Your task to perform on an android device: Open Google Chrome and click the shortcut for Amazon.com Image 0: 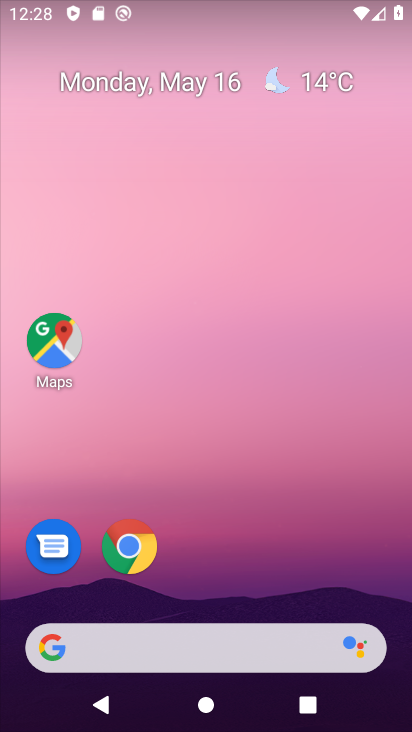
Step 0: drag from (259, 664) to (153, 324)
Your task to perform on an android device: Open Google Chrome and click the shortcut for Amazon.com Image 1: 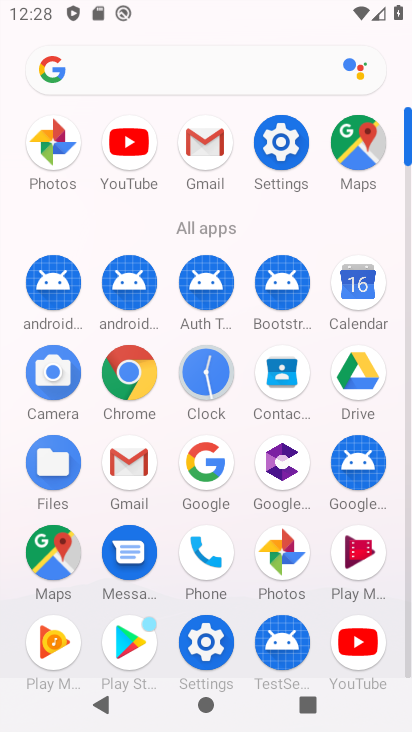
Step 1: click (137, 347)
Your task to perform on an android device: Open Google Chrome and click the shortcut for Amazon.com Image 2: 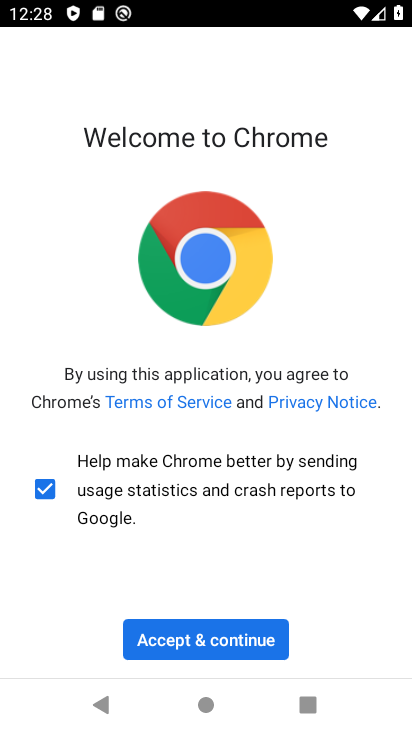
Step 2: click (196, 622)
Your task to perform on an android device: Open Google Chrome and click the shortcut for Amazon.com Image 3: 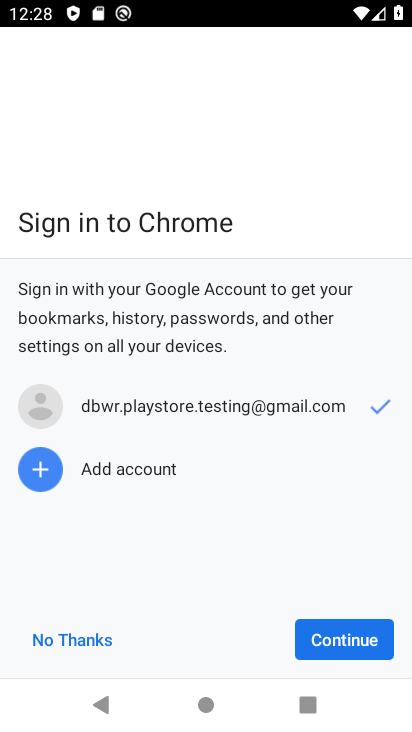
Step 3: click (301, 644)
Your task to perform on an android device: Open Google Chrome and click the shortcut for Amazon.com Image 4: 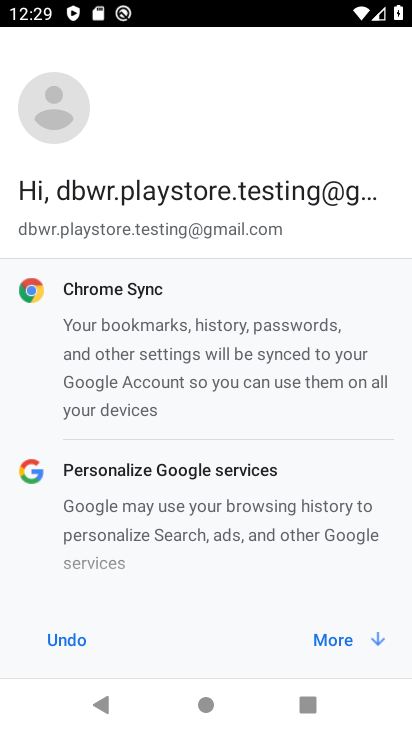
Step 4: click (377, 646)
Your task to perform on an android device: Open Google Chrome and click the shortcut for Amazon.com Image 5: 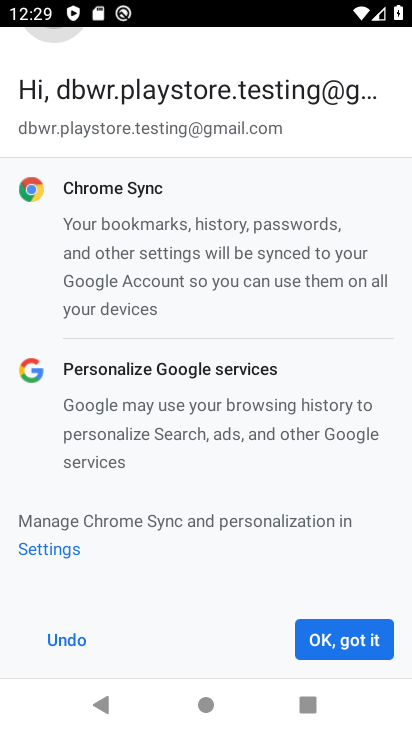
Step 5: click (343, 628)
Your task to perform on an android device: Open Google Chrome and click the shortcut for Amazon.com Image 6: 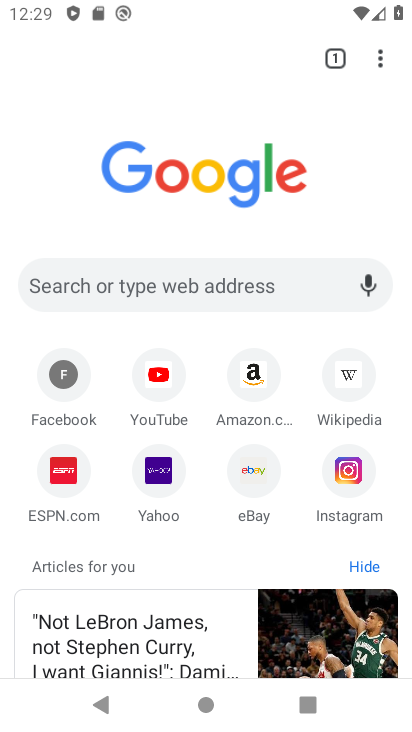
Step 6: click (245, 392)
Your task to perform on an android device: Open Google Chrome and click the shortcut for Amazon.com Image 7: 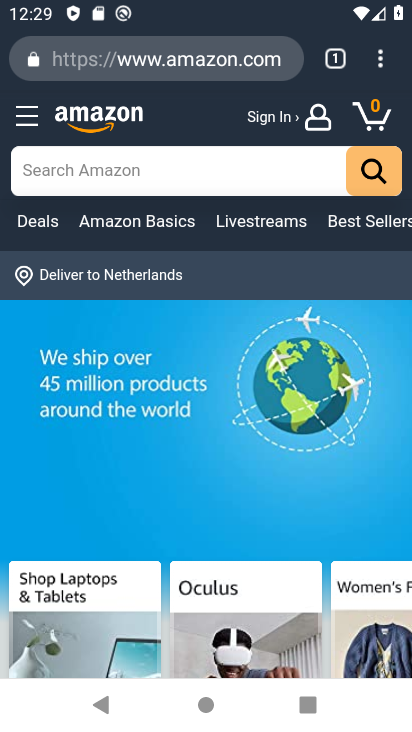
Step 7: click (381, 68)
Your task to perform on an android device: Open Google Chrome and click the shortcut for Amazon.com Image 8: 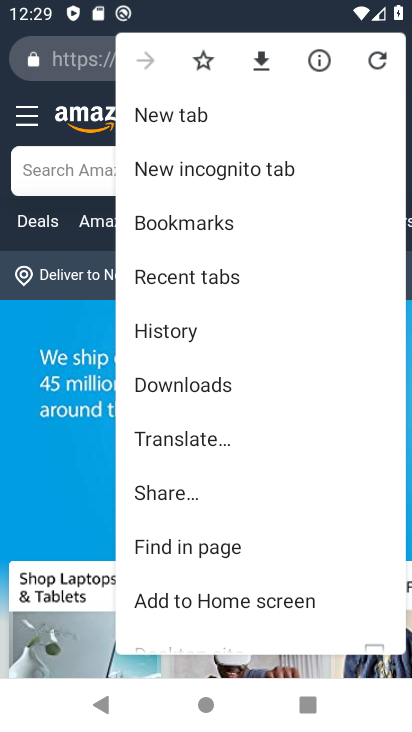
Step 8: click (251, 588)
Your task to perform on an android device: Open Google Chrome and click the shortcut for Amazon.com Image 9: 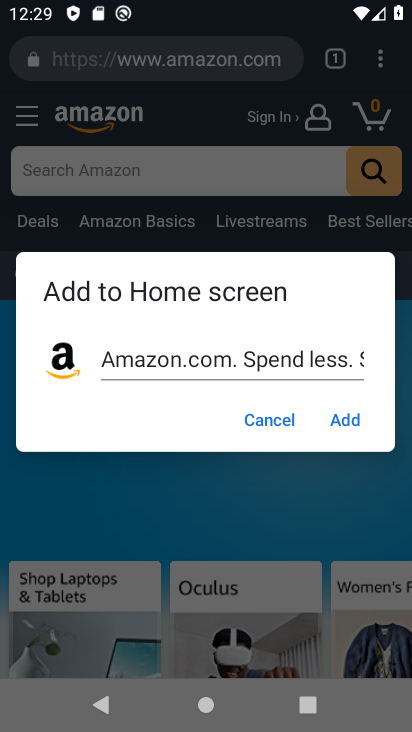
Step 9: click (336, 420)
Your task to perform on an android device: Open Google Chrome and click the shortcut for Amazon.com Image 10: 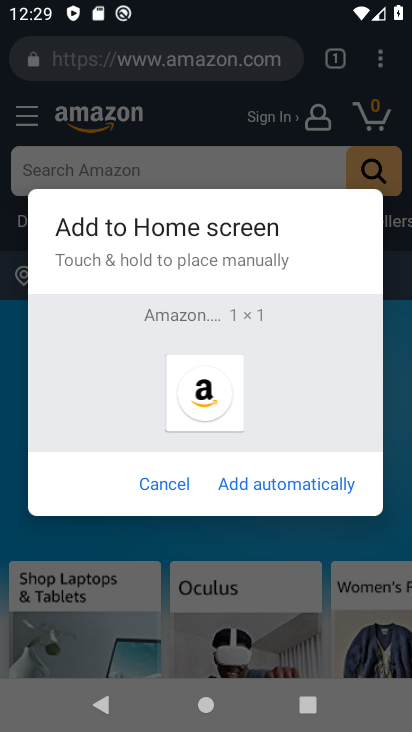
Step 10: click (279, 486)
Your task to perform on an android device: Open Google Chrome and click the shortcut for Amazon.com Image 11: 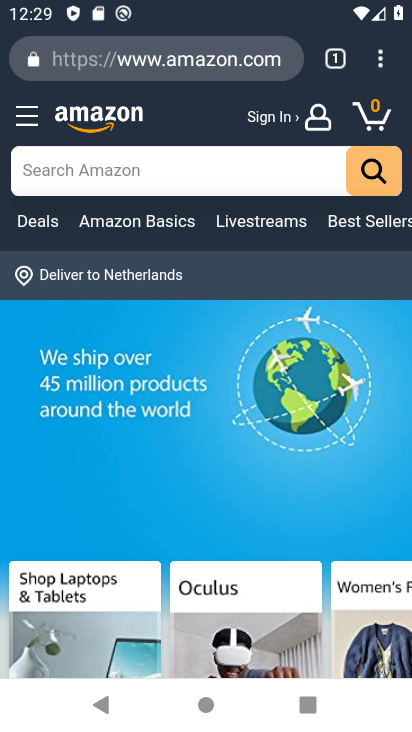
Step 11: task complete